Your task to perform on an android device: change notifications settings Image 0: 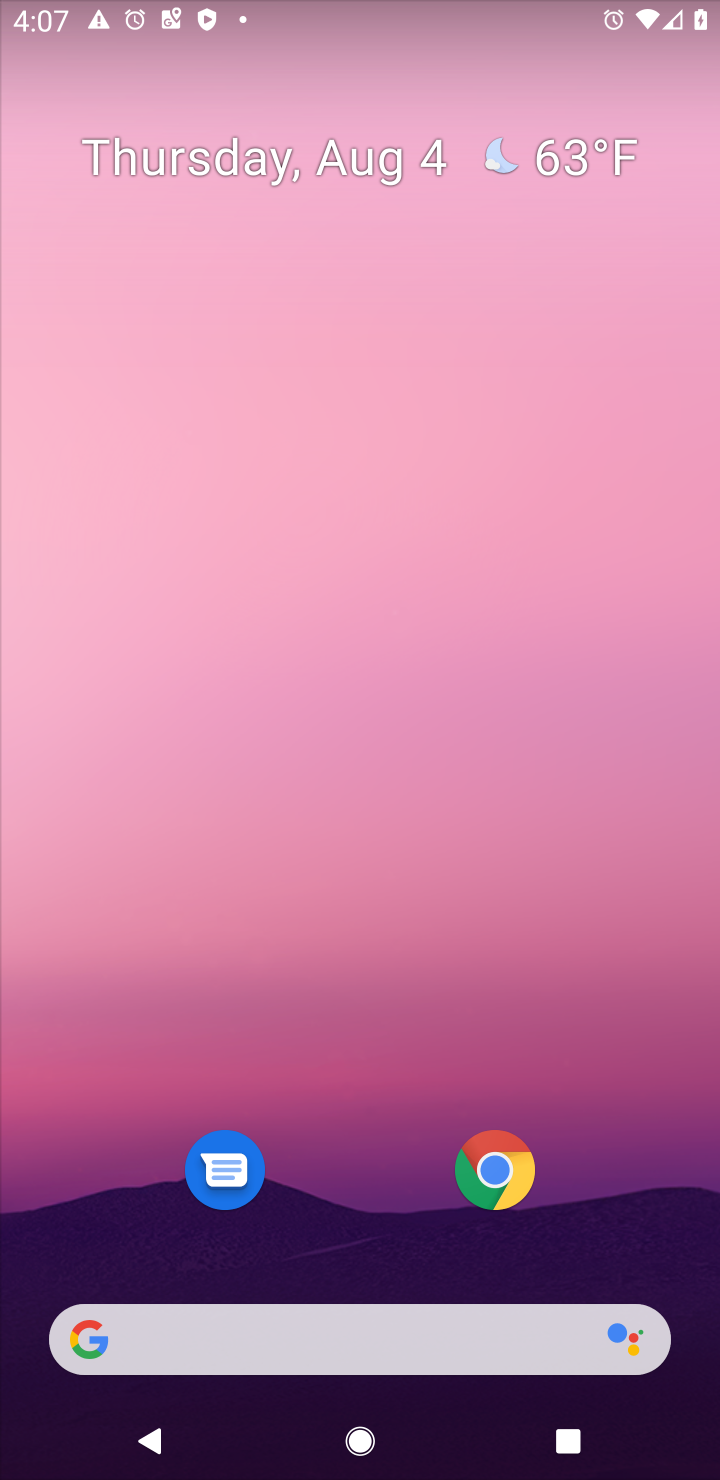
Step 0: drag from (588, 809) to (606, 176)
Your task to perform on an android device: change notifications settings Image 1: 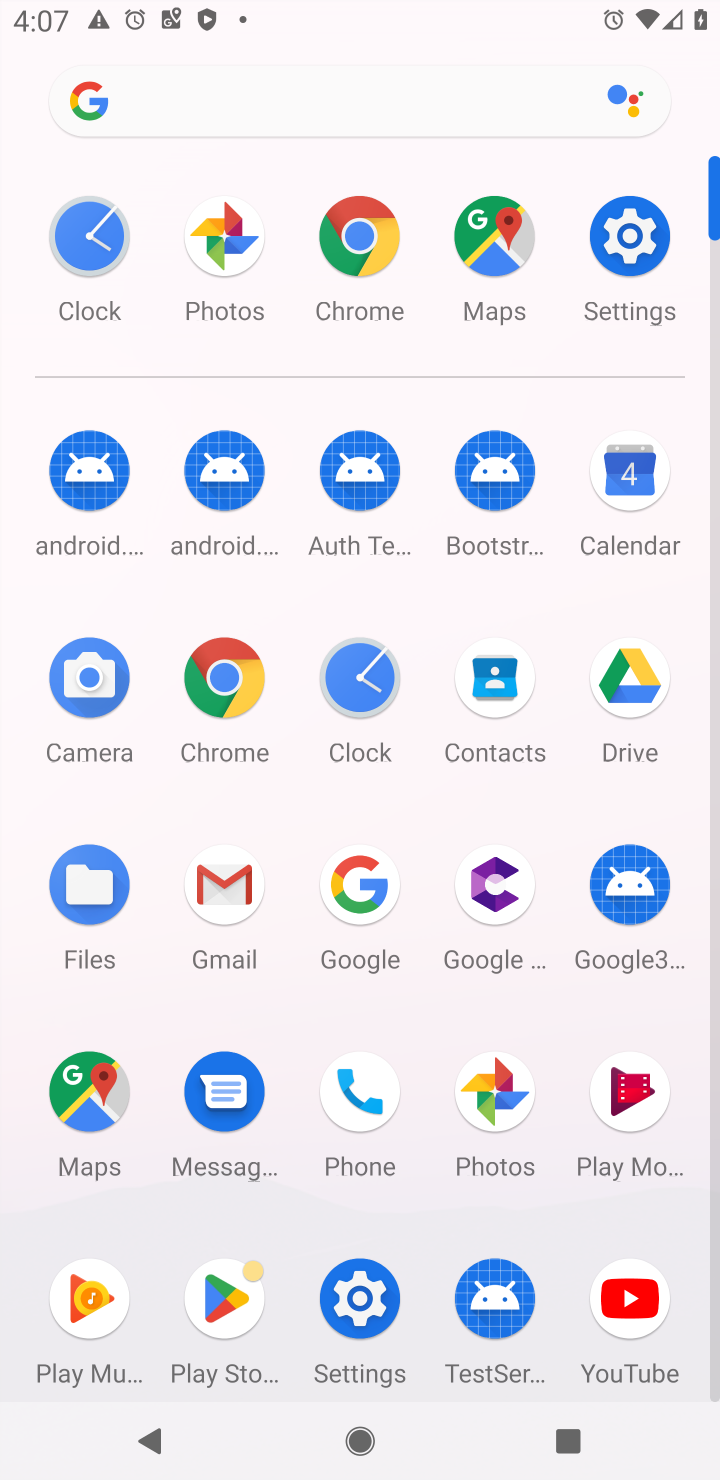
Step 1: click (360, 1301)
Your task to perform on an android device: change notifications settings Image 2: 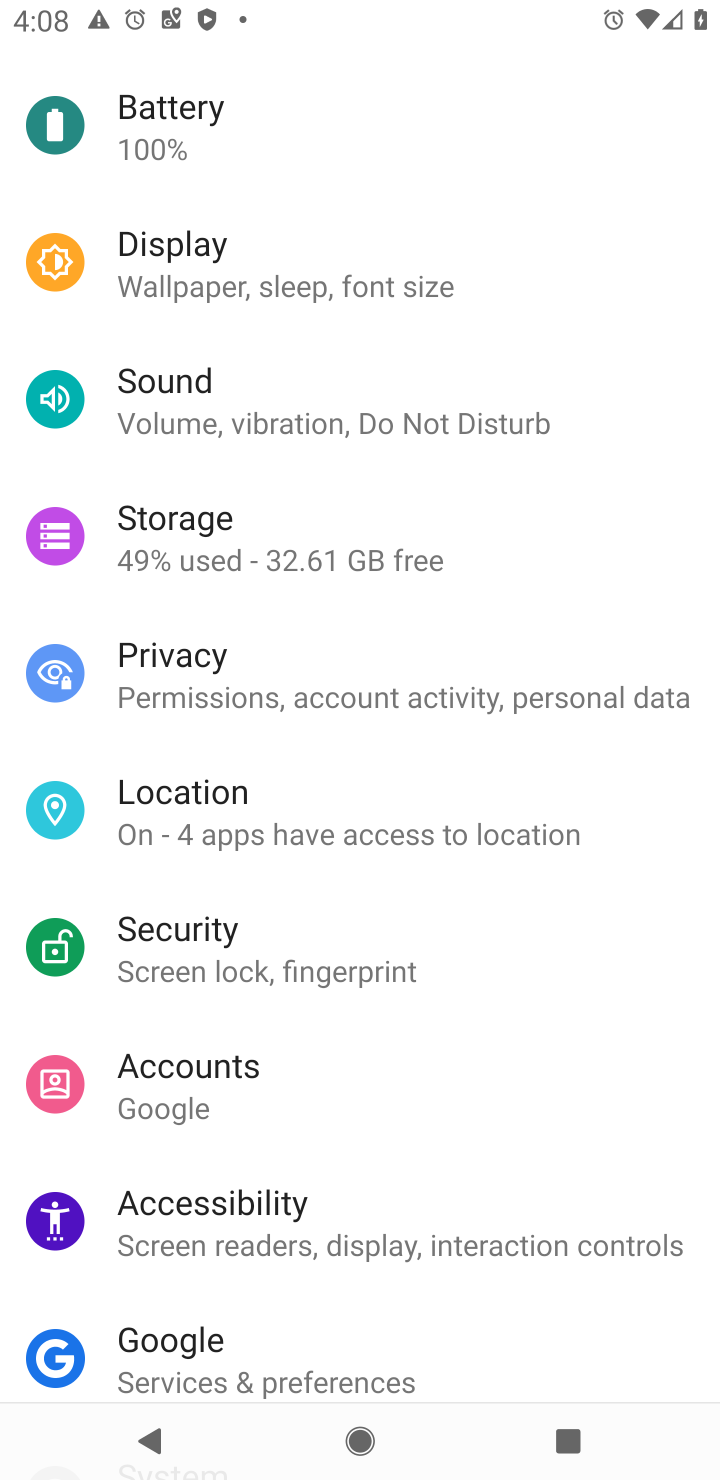
Step 2: drag from (510, 375) to (485, 901)
Your task to perform on an android device: change notifications settings Image 3: 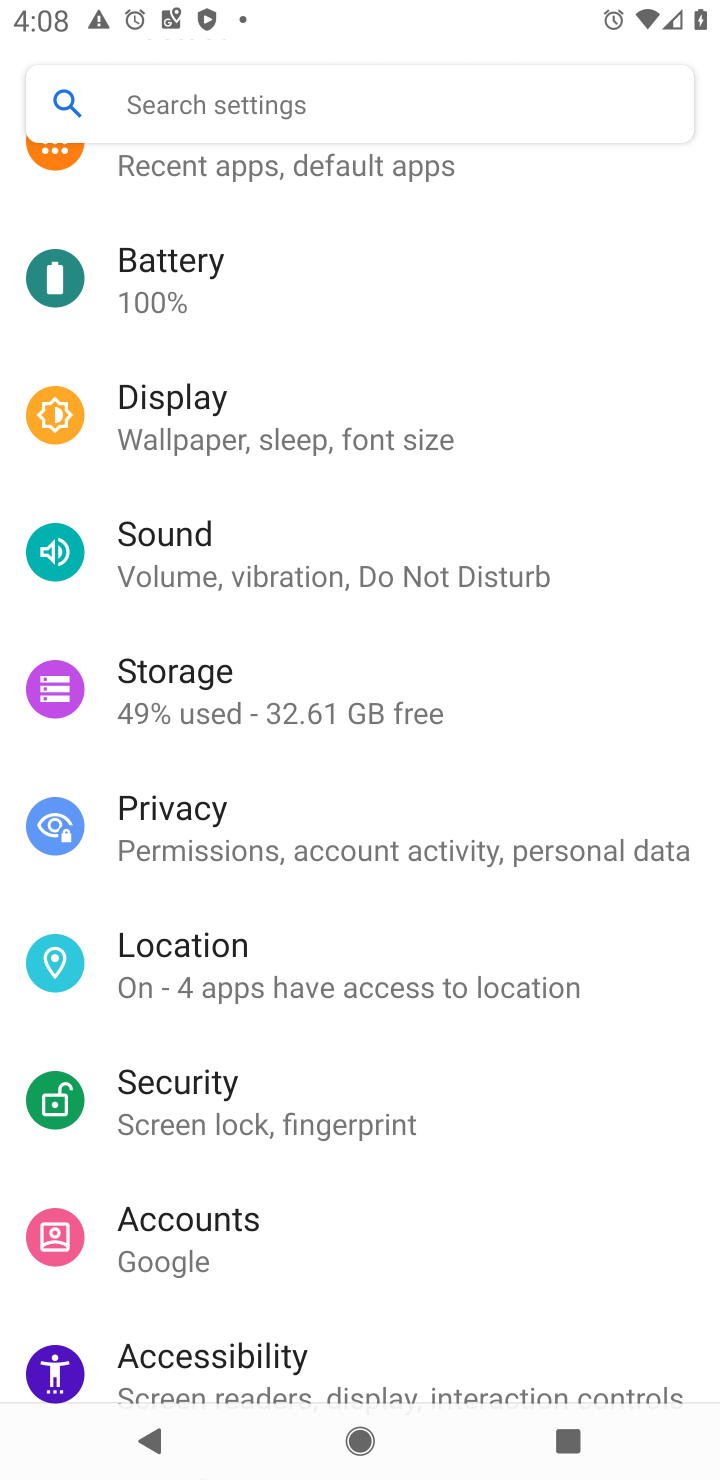
Step 3: drag from (539, 445) to (516, 1111)
Your task to perform on an android device: change notifications settings Image 4: 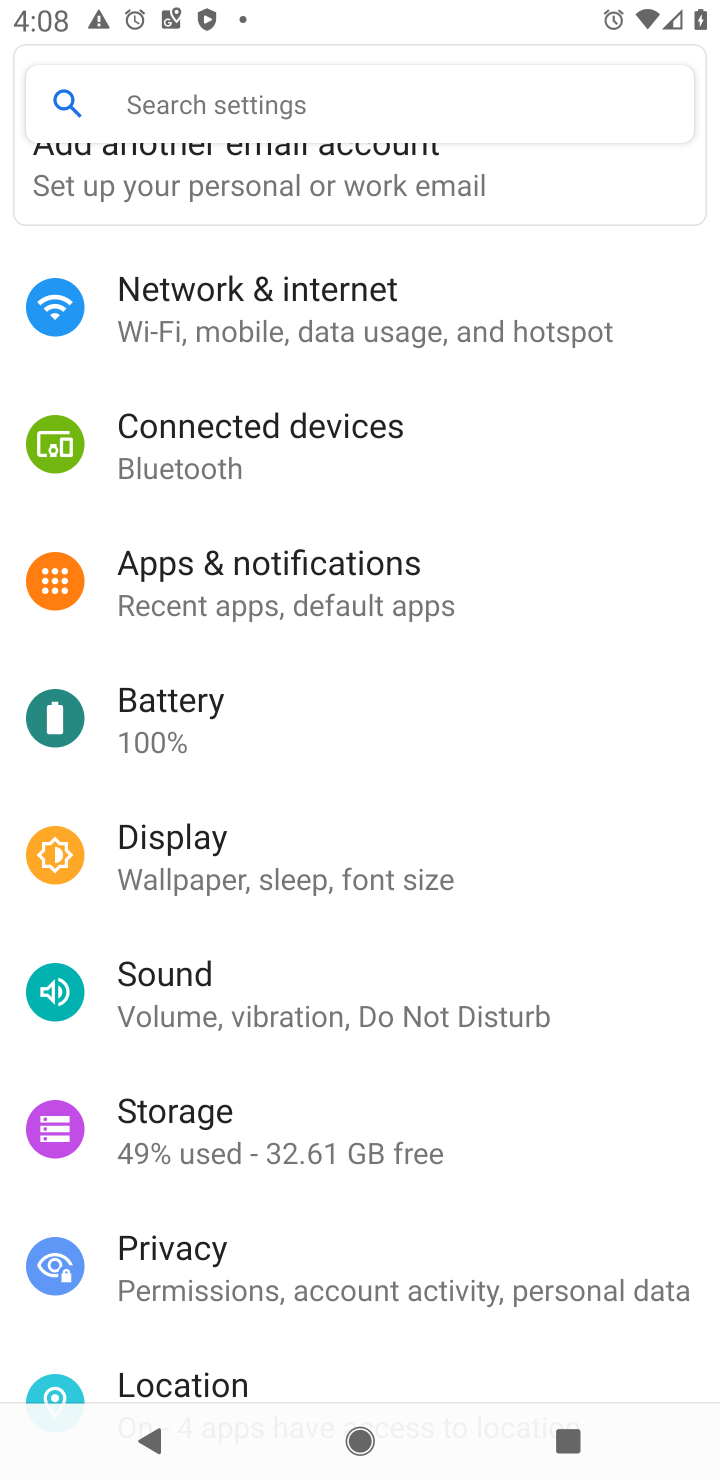
Step 4: click (257, 563)
Your task to perform on an android device: change notifications settings Image 5: 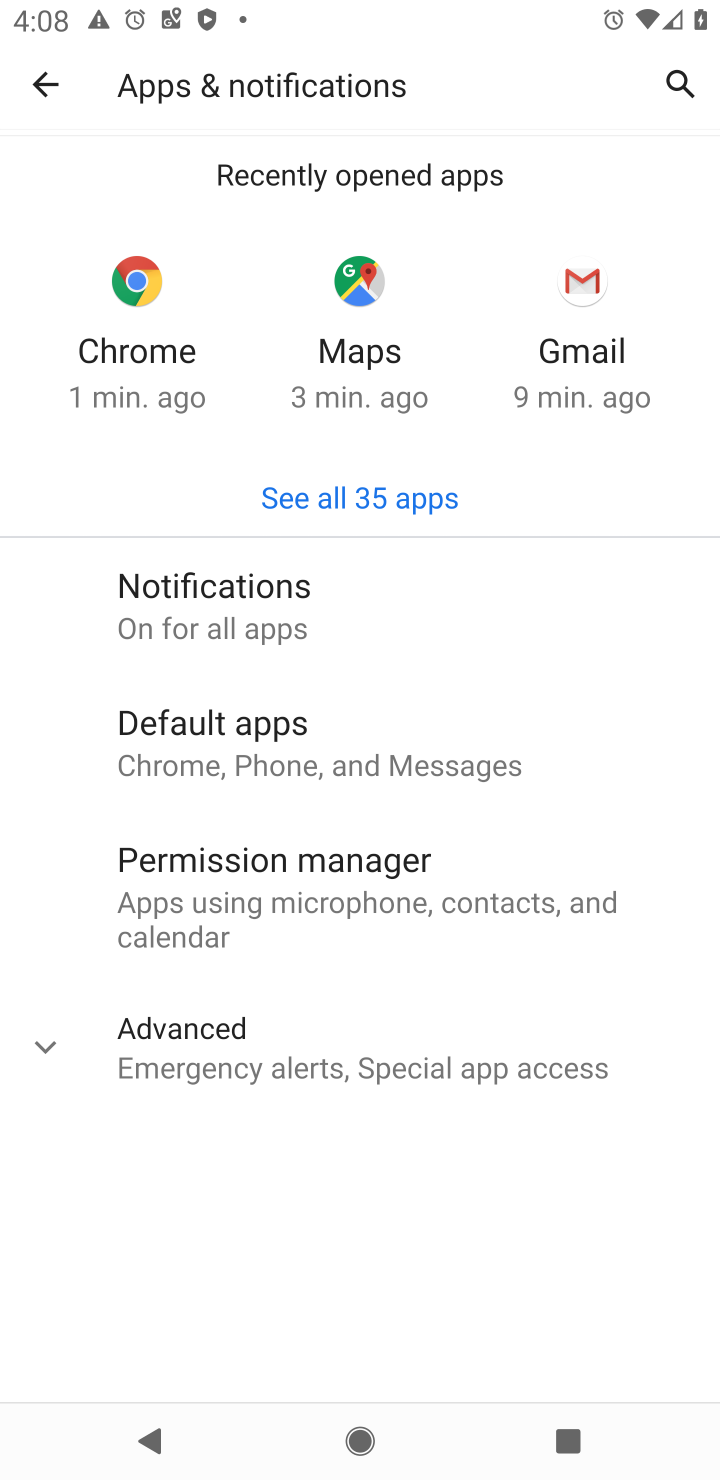
Step 5: click (187, 605)
Your task to perform on an android device: change notifications settings Image 6: 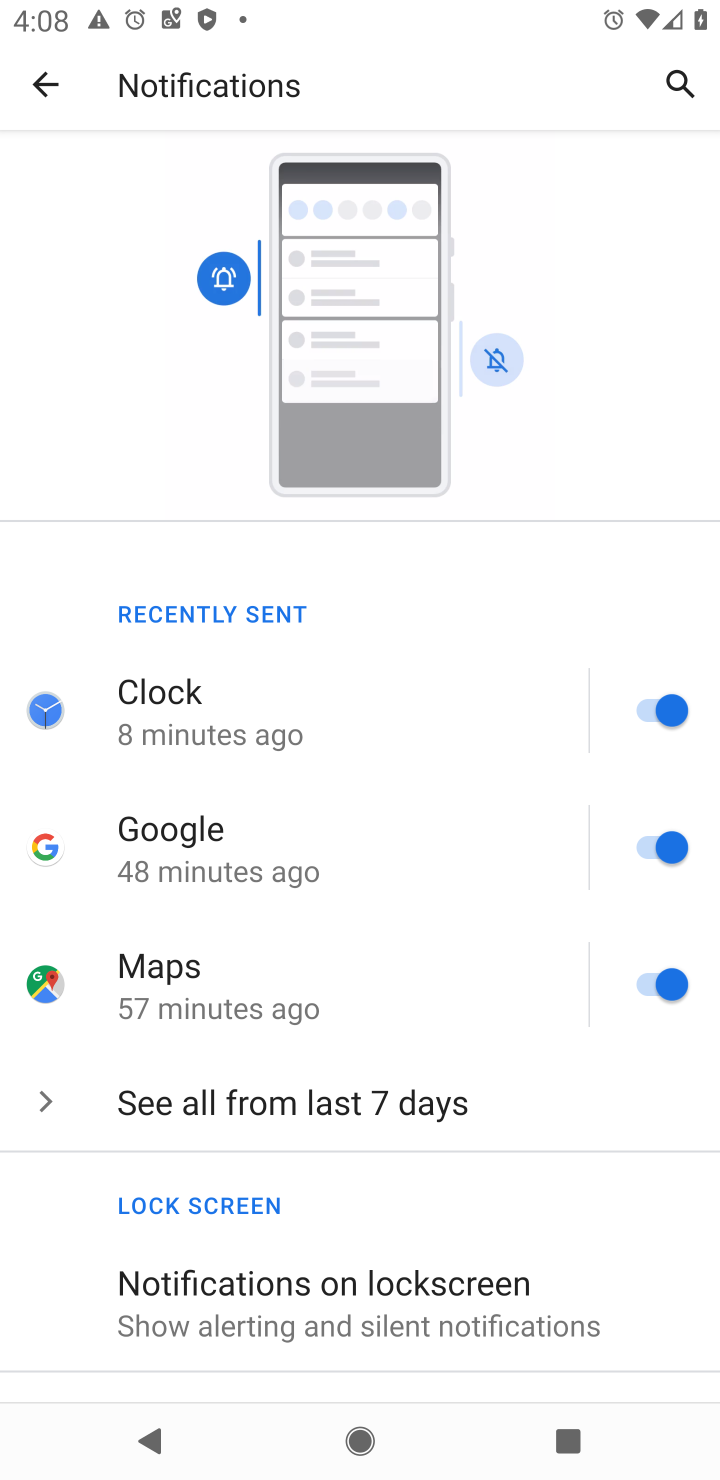
Step 6: drag from (521, 1235) to (559, 526)
Your task to perform on an android device: change notifications settings Image 7: 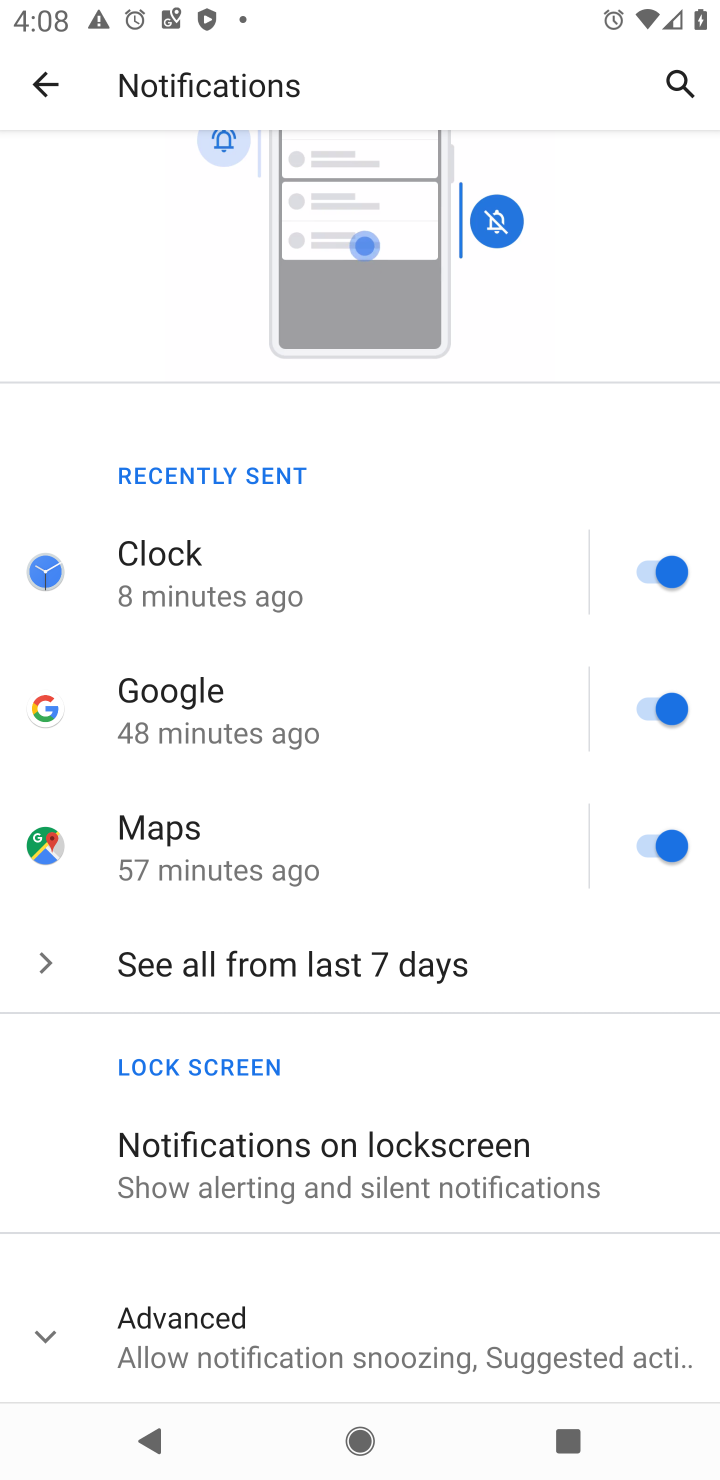
Step 7: click (53, 1352)
Your task to perform on an android device: change notifications settings Image 8: 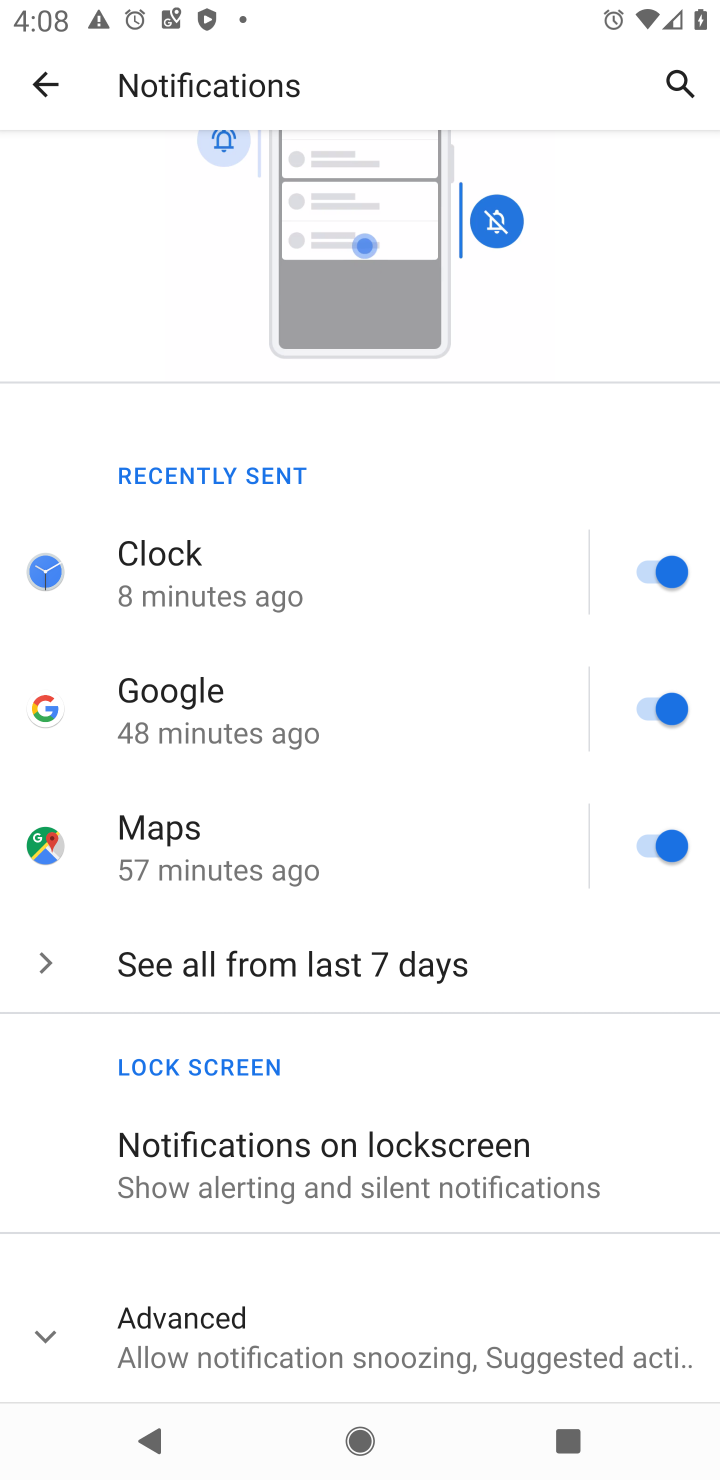
Step 8: drag from (367, 1072) to (359, 903)
Your task to perform on an android device: change notifications settings Image 9: 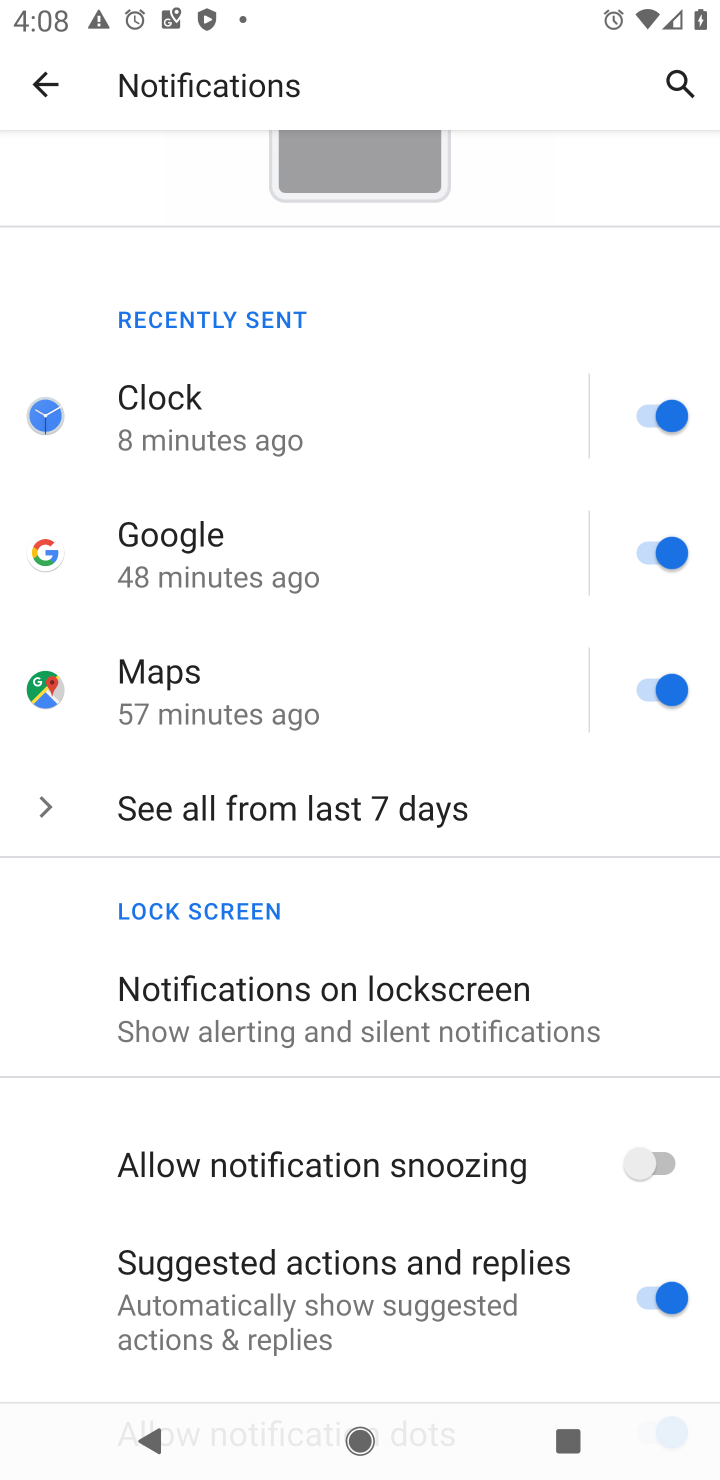
Step 9: drag from (563, 1176) to (489, 576)
Your task to perform on an android device: change notifications settings Image 10: 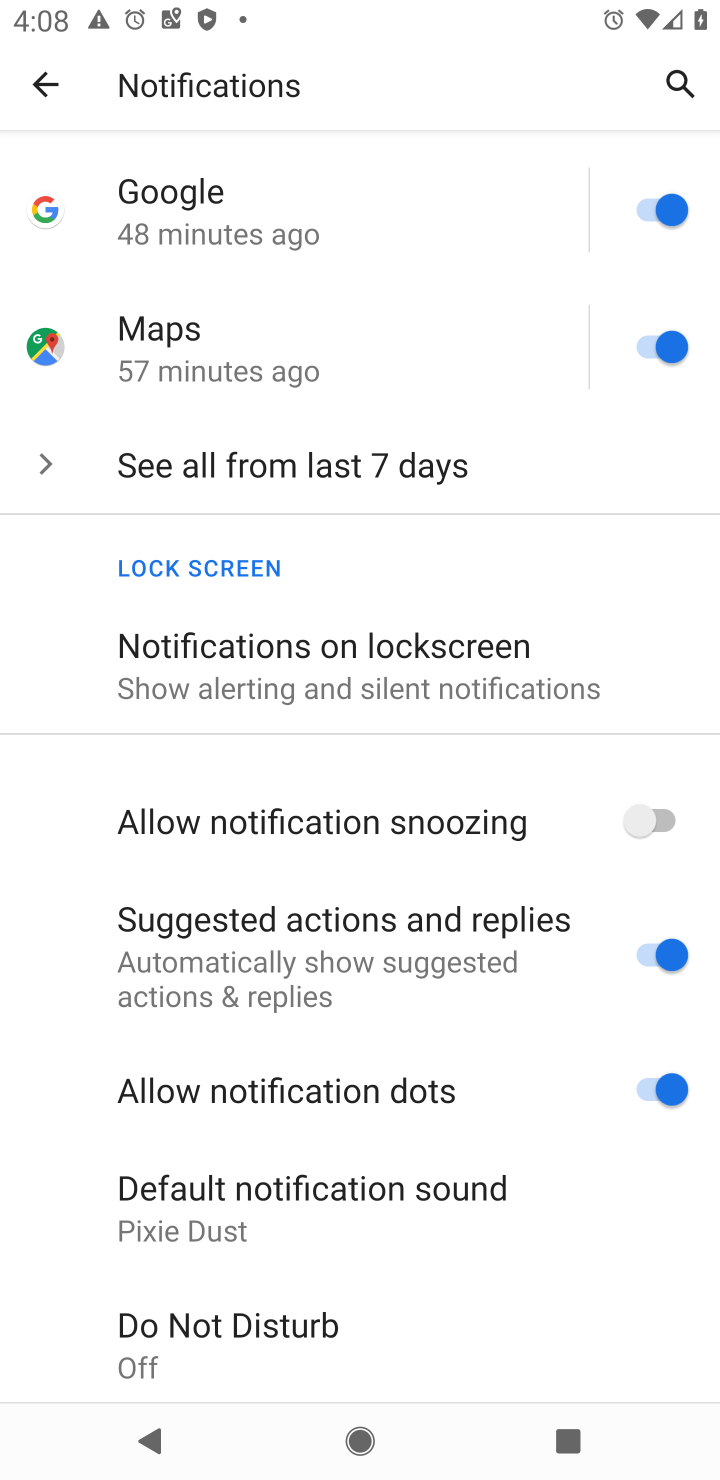
Step 10: click (651, 821)
Your task to perform on an android device: change notifications settings Image 11: 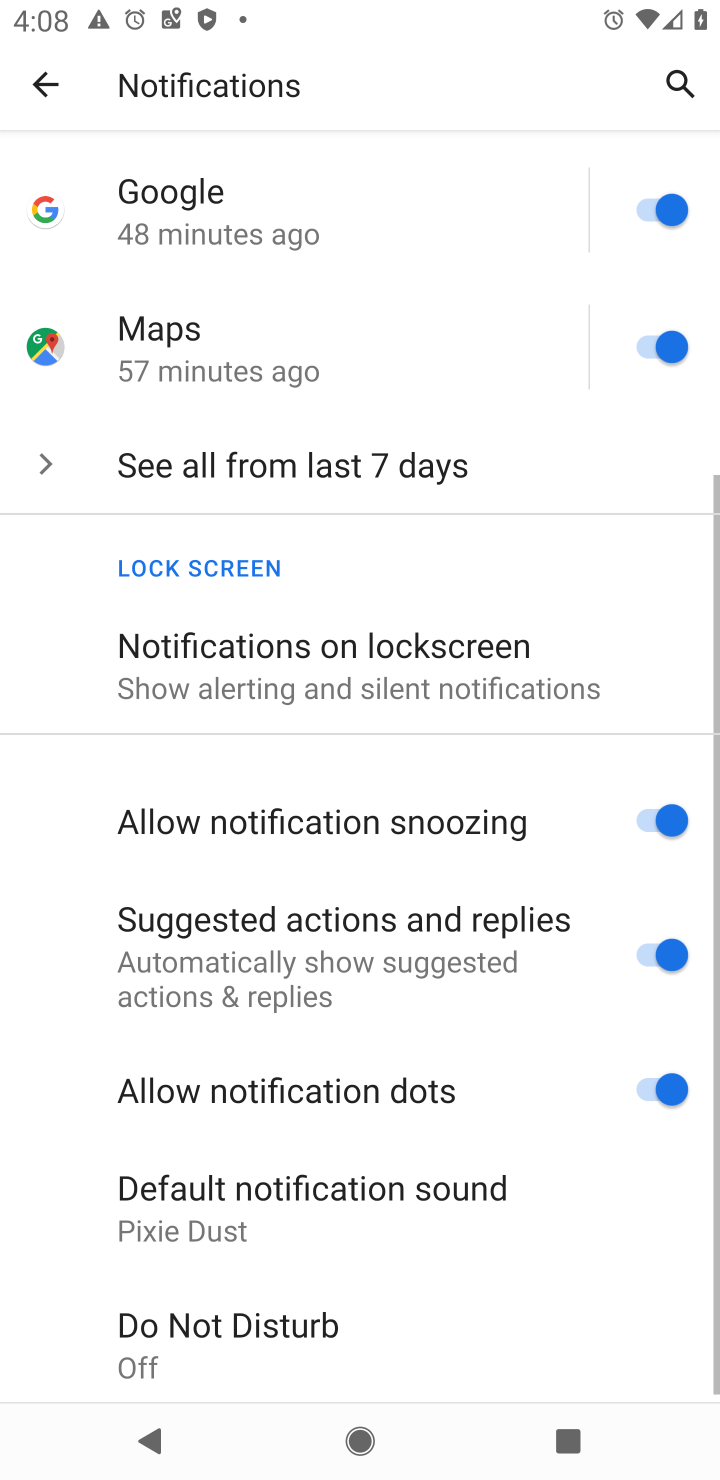
Step 11: click (650, 1093)
Your task to perform on an android device: change notifications settings Image 12: 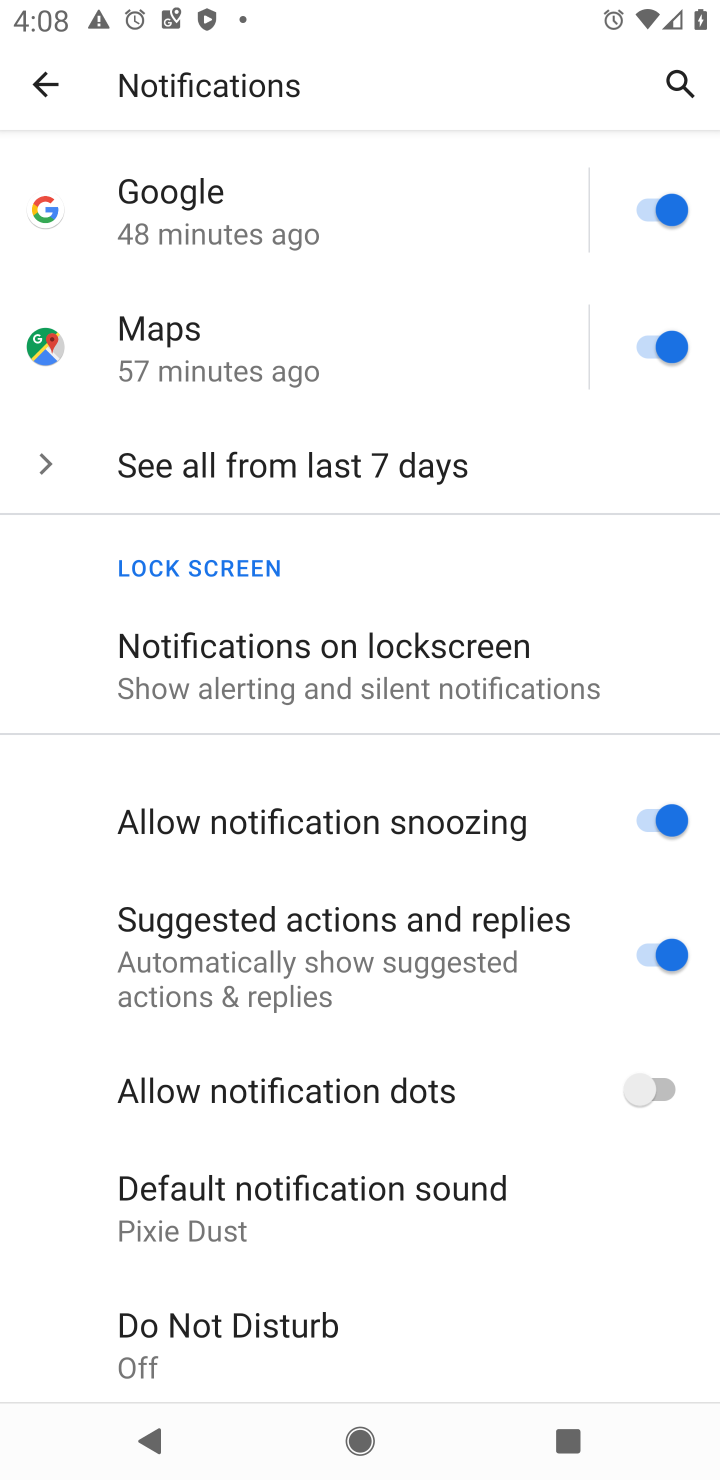
Step 12: task complete